Your task to perform on an android device: Open notification settings Image 0: 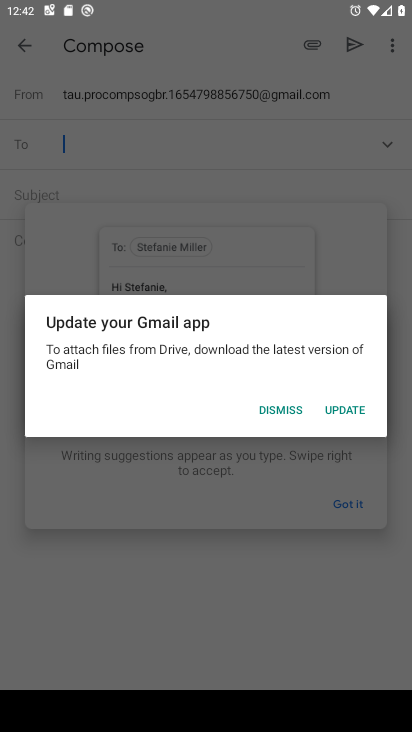
Step 0: click (391, 531)
Your task to perform on an android device: Open notification settings Image 1: 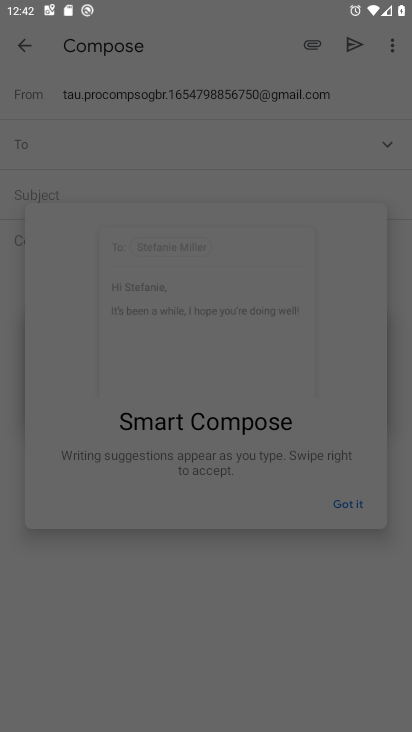
Step 1: click (351, 500)
Your task to perform on an android device: Open notification settings Image 2: 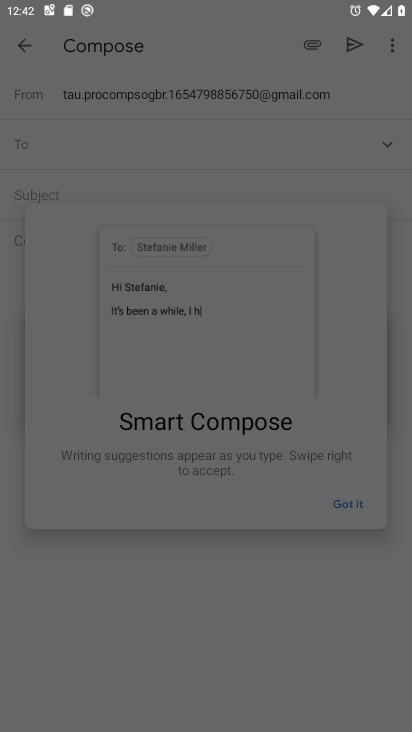
Step 2: press home button
Your task to perform on an android device: Open notification settings Image 3: 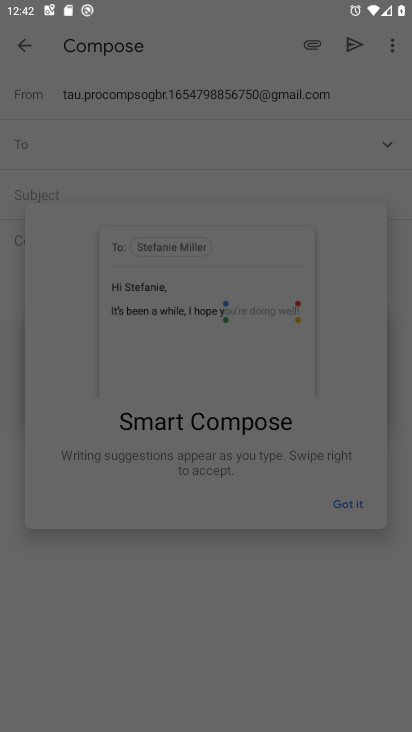
Step 3: drag from (213, 620) to (351, 134)
Your task to perform on an android device: Open notification settings Image 4: 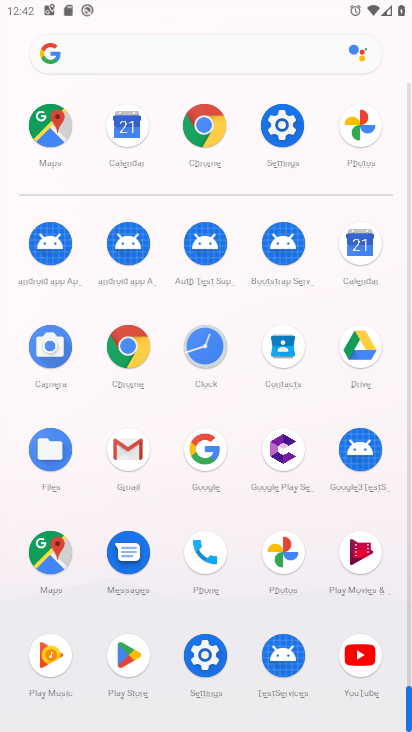
Step 4: click (289, 110)
Your task to perform on an android device: Open notification settings Image 5: 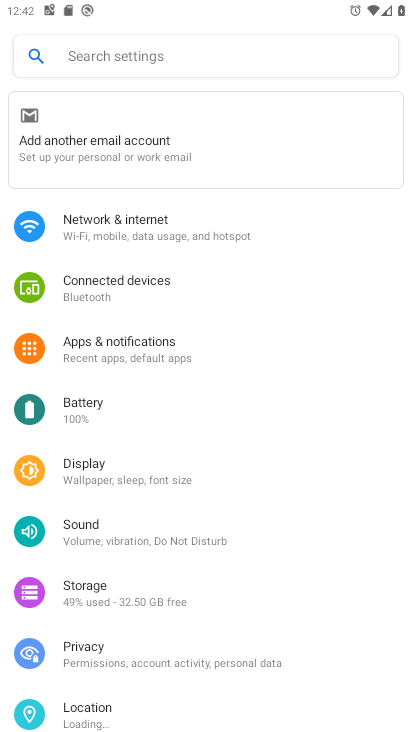
Step 5: click (153, 338)
Your task to perform on an android device: Open notification settings Image 6: 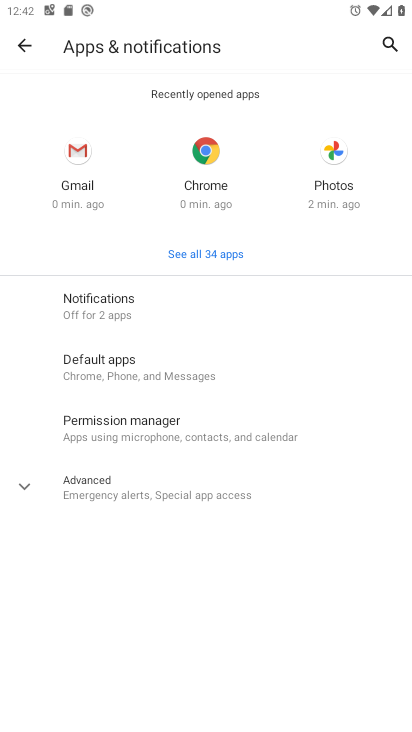
Step 6: click (145, 313)
Your task to perform on an android device: Open notification settings Image 7: 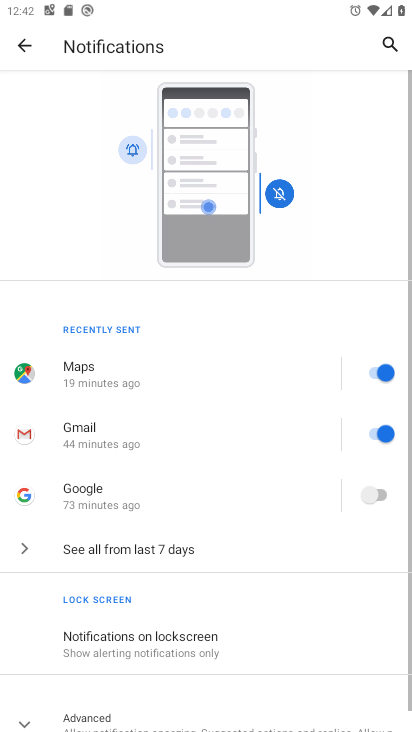
Step 7: task complete